Your task to perform on an android device: open app "Speedtest by Ookla" (install if not already installed), go to login, and select forgot password Image 0: 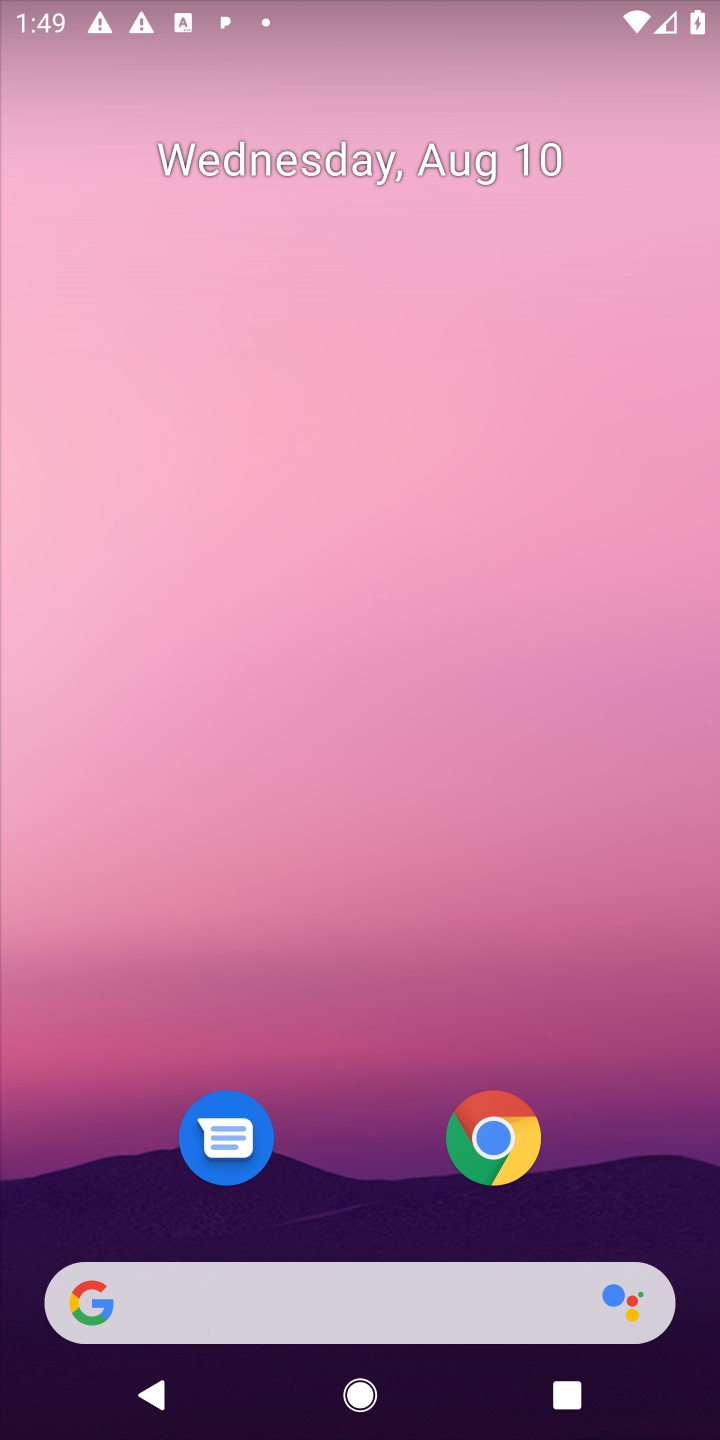
Step 0: press home button
Your task to perform on an android device: open app "Speedtest by Ookla" (install if not already installed), go to login, and select forgot password Image 1: 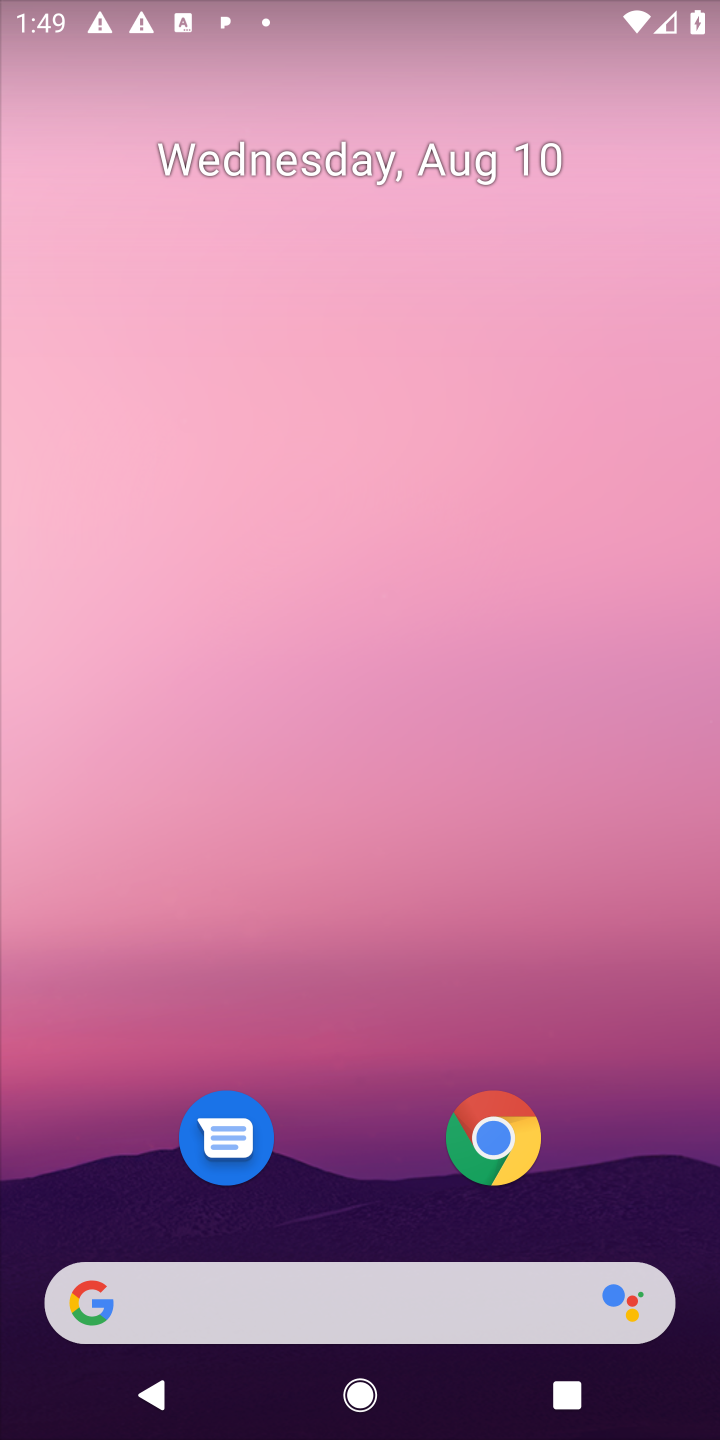
Step 1: drag from (603, 1156) to (632, 76)
Your task to perform on an android device: open app "Speedtest by Ookla" (install if not already installed), go to login, and select forgot password Image 2: 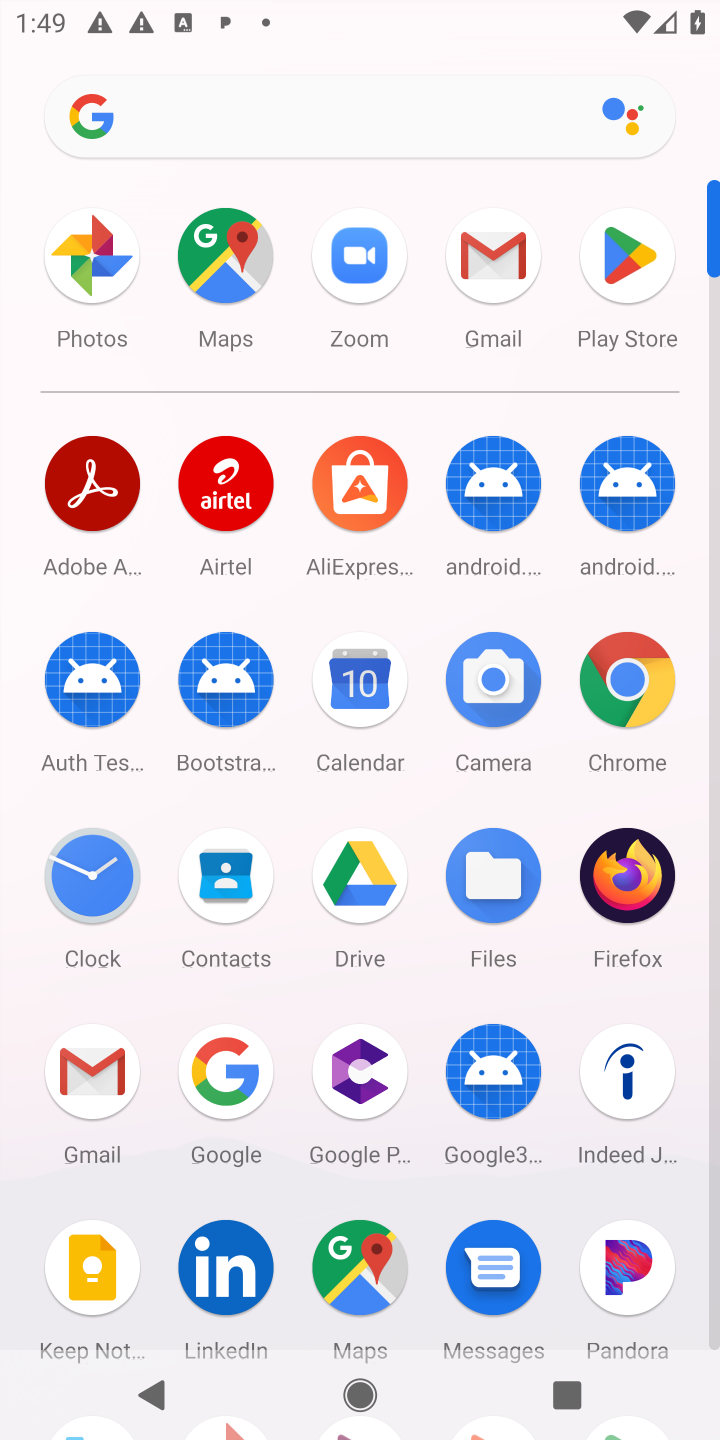
Step 2: click (624, 263)
Your task to perform on an android device: open app "Speedtest by Ookla" (install if not already installed), go to login, and select forgot password Image 3: 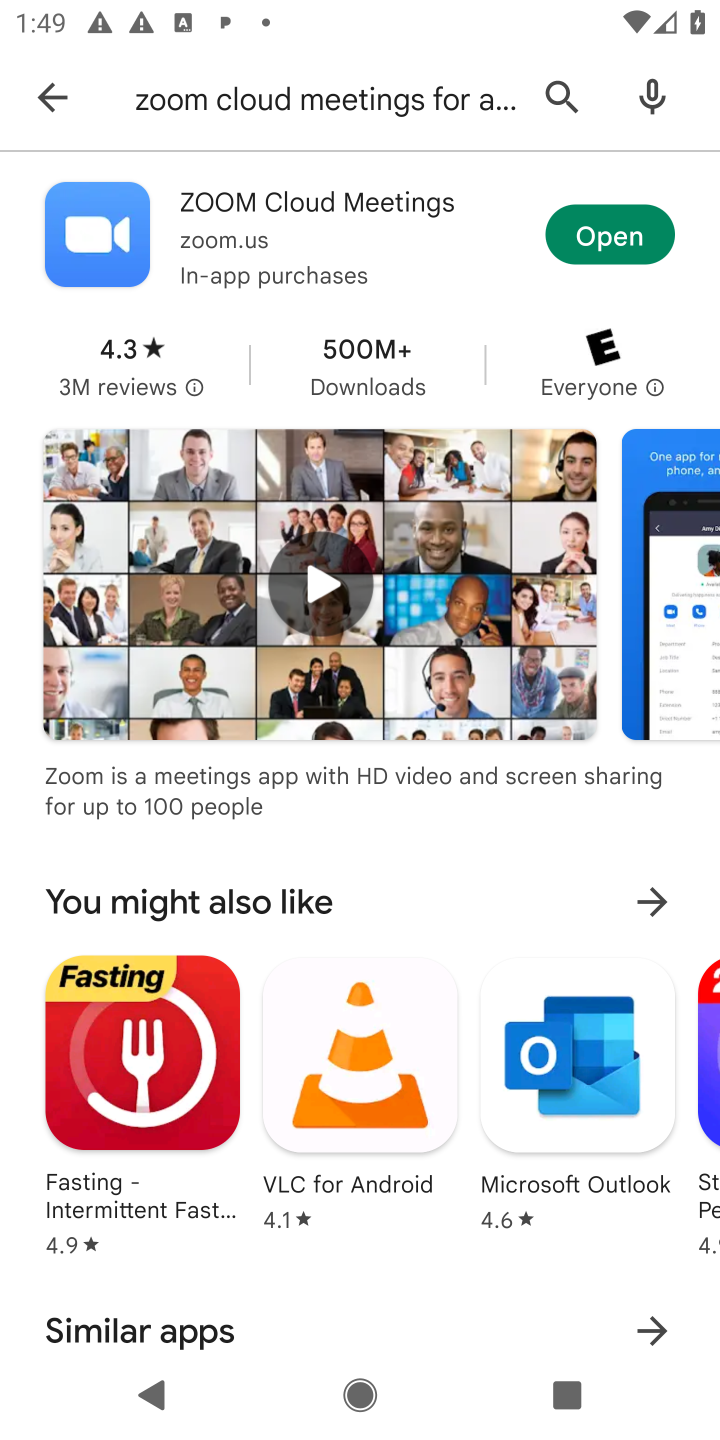
Step 3: click (563, 85)
Your task to perform on an android device: open app "Speedtest by Ookla" (install if not already installed), go to login, and select forgot password Image 4: 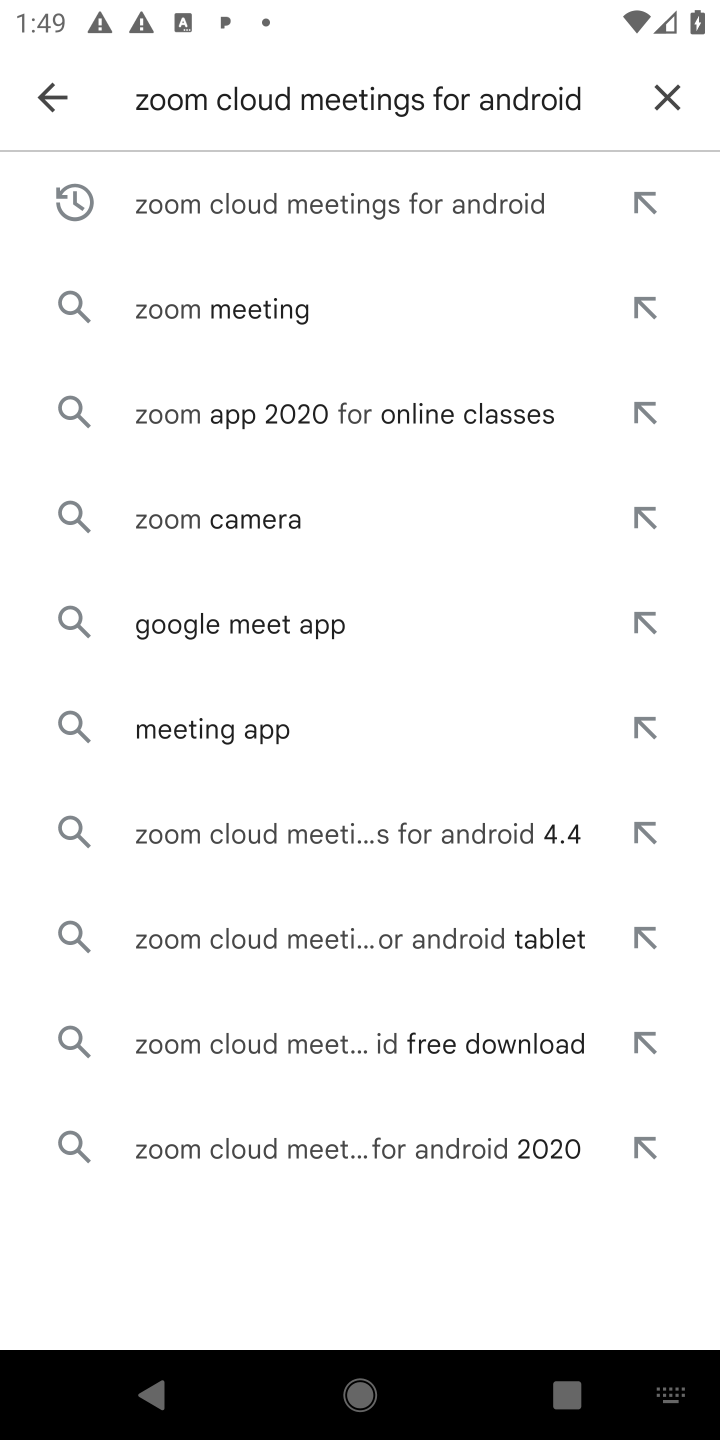
Step 4: click (658, 91)
Your task to perform on an android device: open app "Speedtest by Ookla" (install if not already installed), go to login, and select forgot password Image 5: 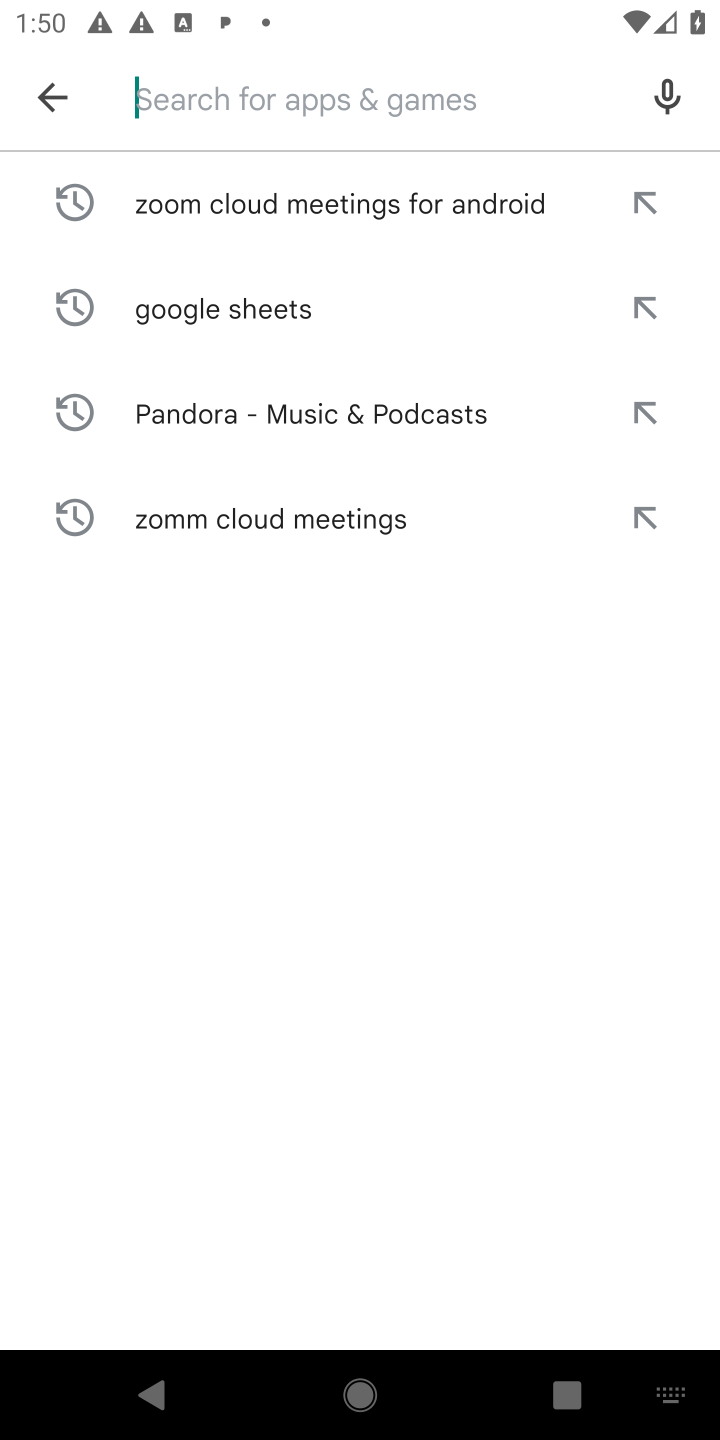
Step 5: type "speedtest by ookla"
Your task to perform on an android device: open app "Speedtest by Ookla" (install if not already installed), go to login, and select forgot password Image 6: 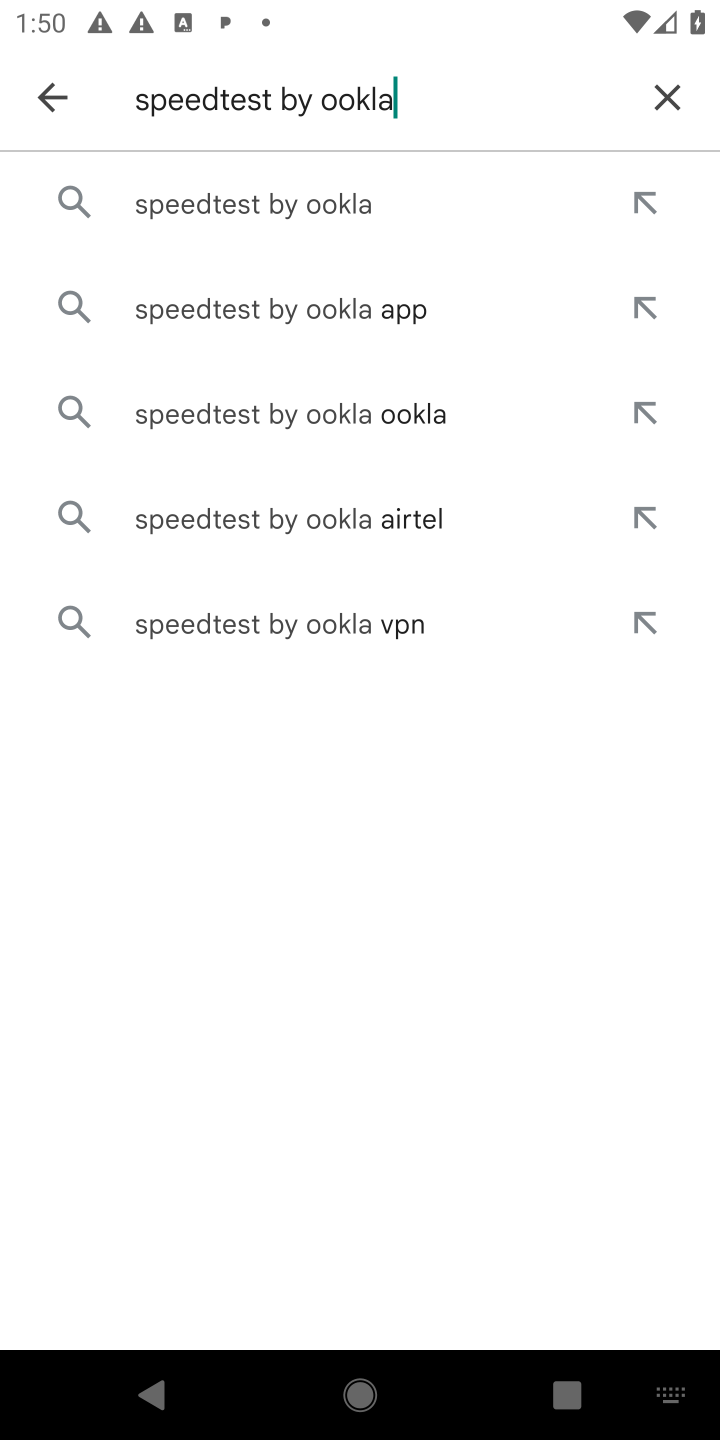
Step 6: click (372, 205)
Your task to perform on an android device: open app "Speedtest by Ookla" (install if not already installed), go to login, and select forgot password Image 7: 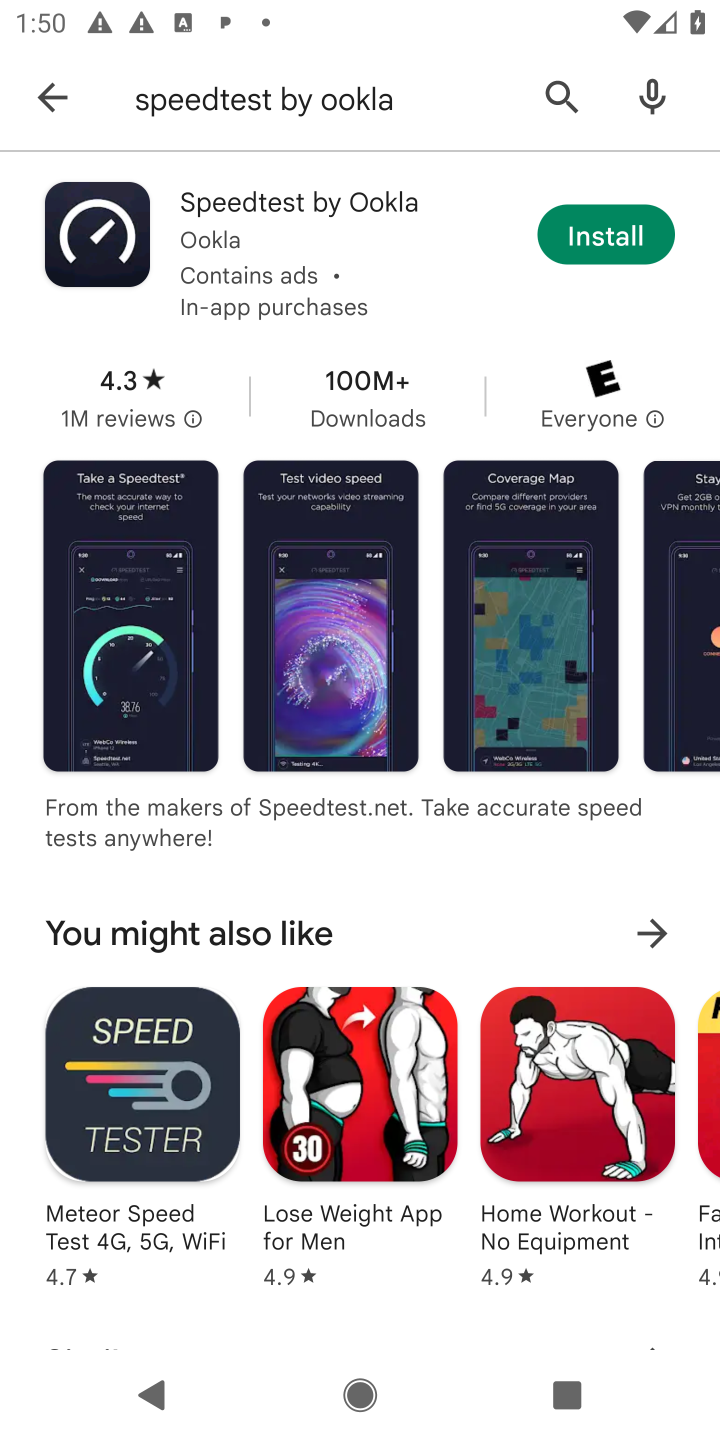
Step 7: click (613, 239)
Your task to perform on an android device: open app "Speedtest by Ookla" (install if not already installed), go to login, and select forgot password Image 8: 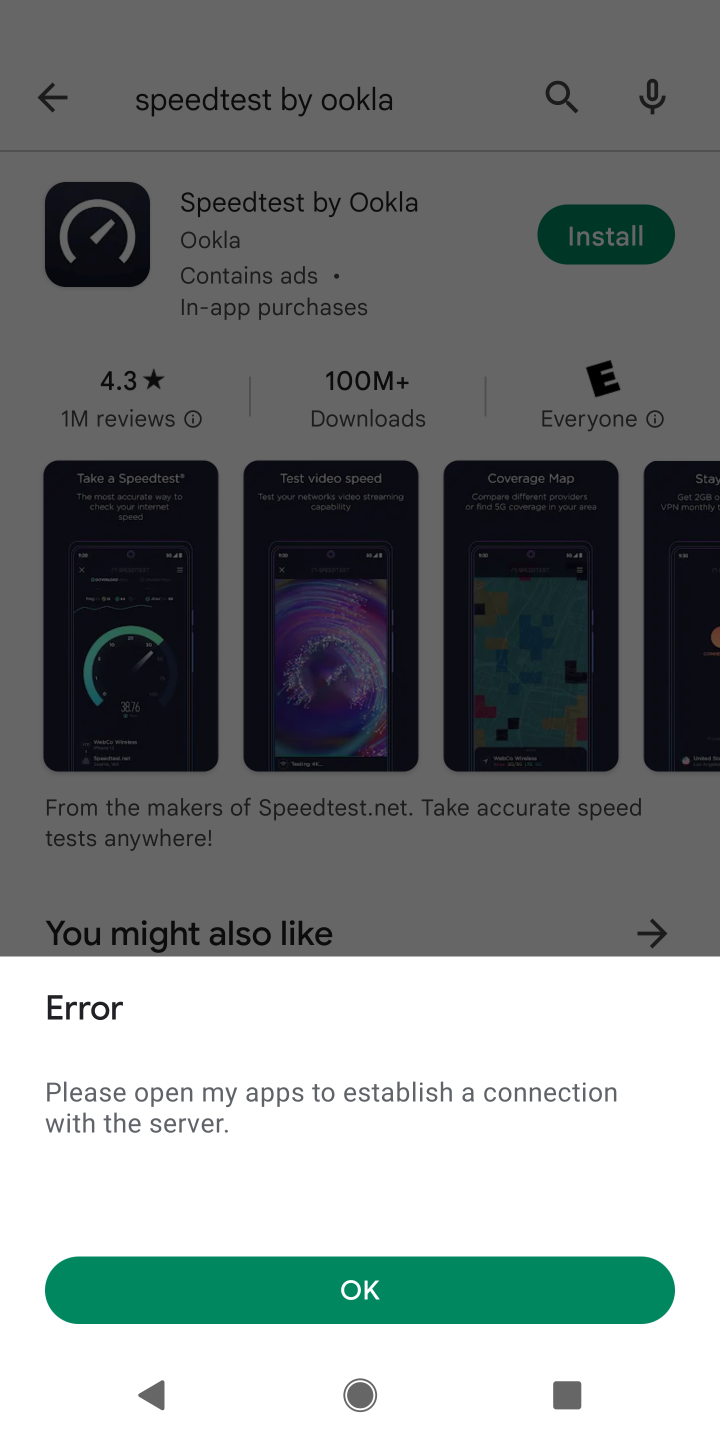
Step 8: task complete